Your task to perform on an android device: turn smart compose on in the gmail app Image 0: 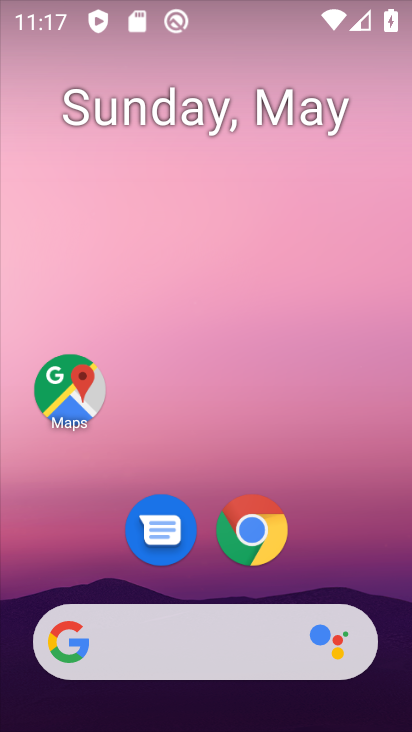
Step 0: drag from (202, 569) to (262, 109)
Your task to perform on an android device: turn smart compose on in the gmail app Image 1: 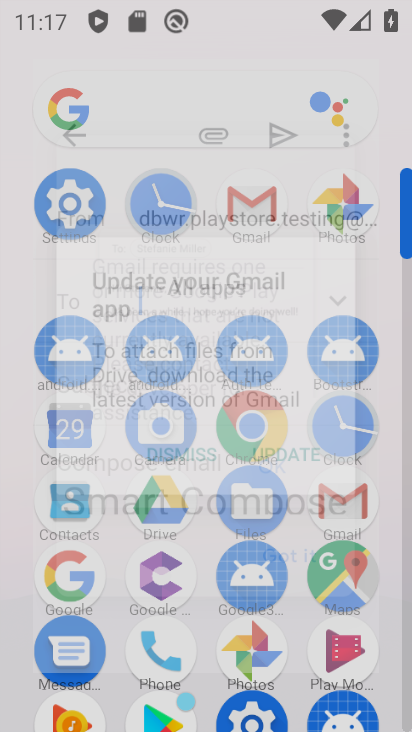
Step 1: click (245, 195)
Your task to perform on an android device: turn smart compose on in the gmail app Image 2: 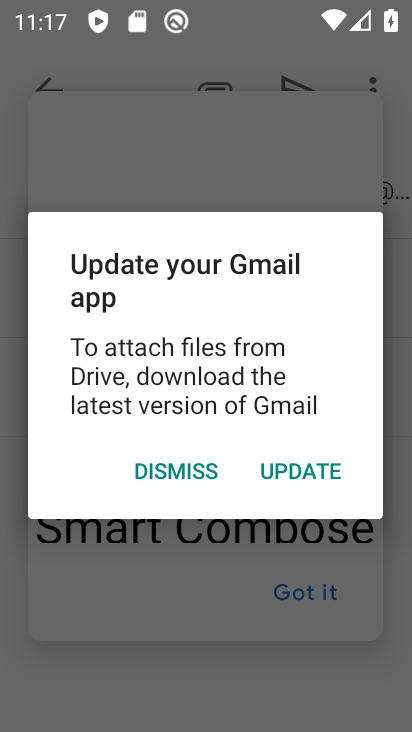
Step 2: click (181, 461)
Your task to perform on an android device: turn smart compose on in the gmail app Image 3: 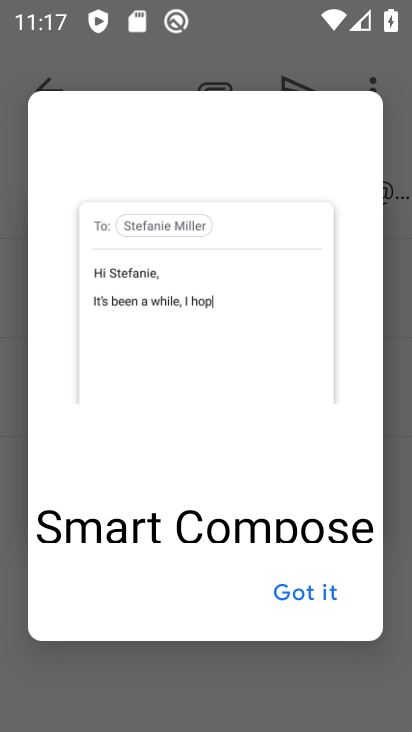
Step 3: click (307, 585)
Your task to perform on an android device: turn smart compose on in the gmail app Image 4: 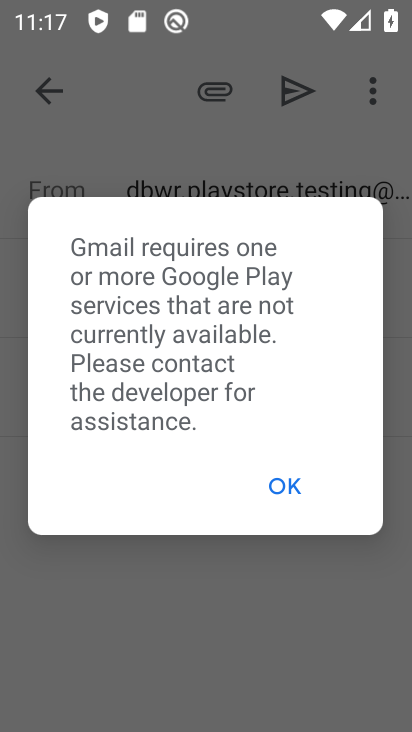
Step 4: click (290, 494)
Your task to perform on an android device: turn smart compose on in the gmail app Image 5: 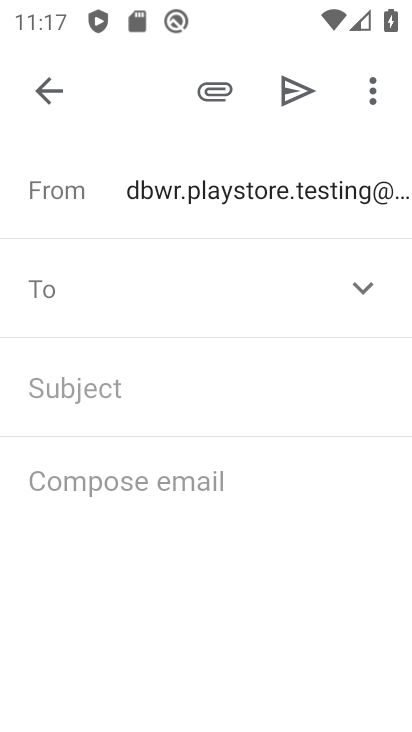
Step 5: click (51, 83)
Your task to perform on an android device: turn smart compose on in the gmail app Image 6: 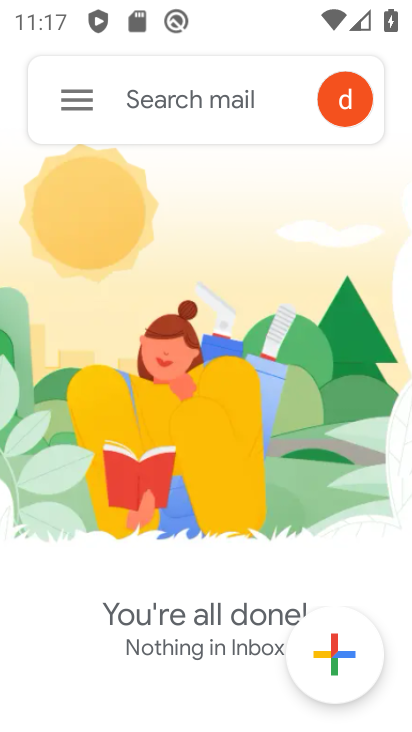
Step 6: click (60, 91)
Your task to perform on an android device: turn smart compose on in the gmail app Image 7: 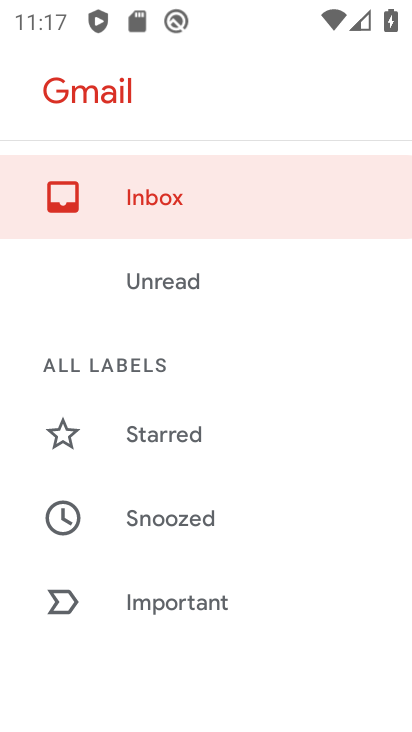
Step 7: drag from (187, 598) to (276, 4)
Your task to perform on an android device: turn smart compose on in the gmail app Image 8: 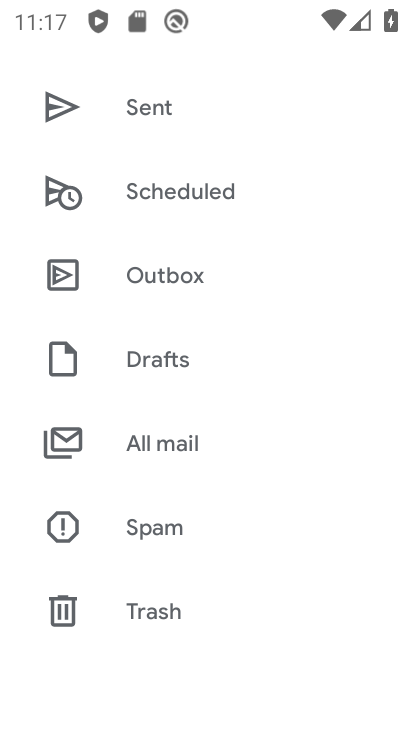
Step 8: drag from (191, 589) to (261, 97)
Your task to perform on an android device: turn smart compose on in the gmail app Image 9: 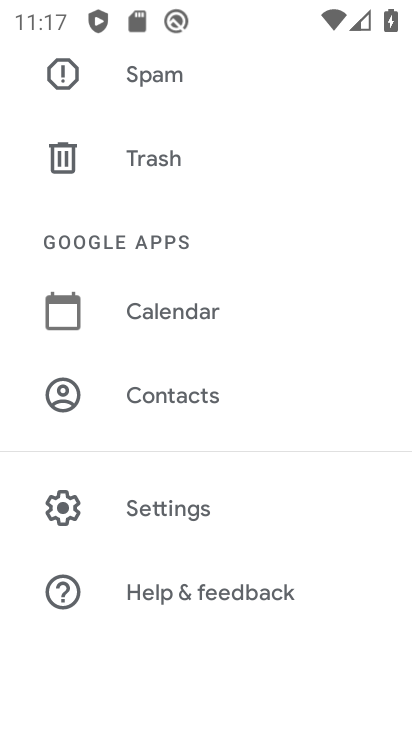
Step 9: click (157, 521)
Your task to perform on an android device: turn smart compose on in the gmail app Image 10: 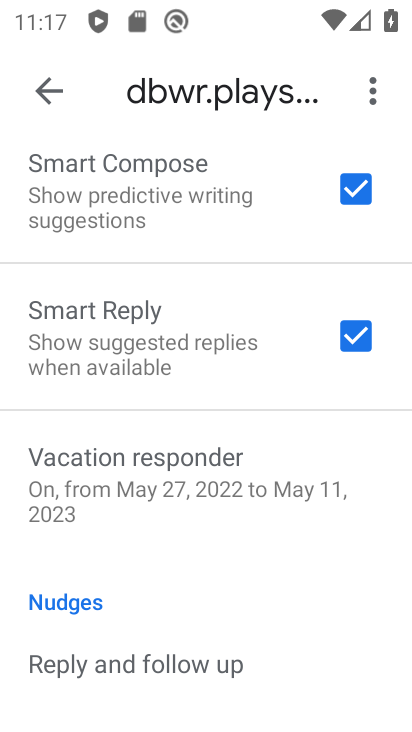
Step 10: task complete